Your task to perform on an android device: check the backup settings in the google photos Image 0: 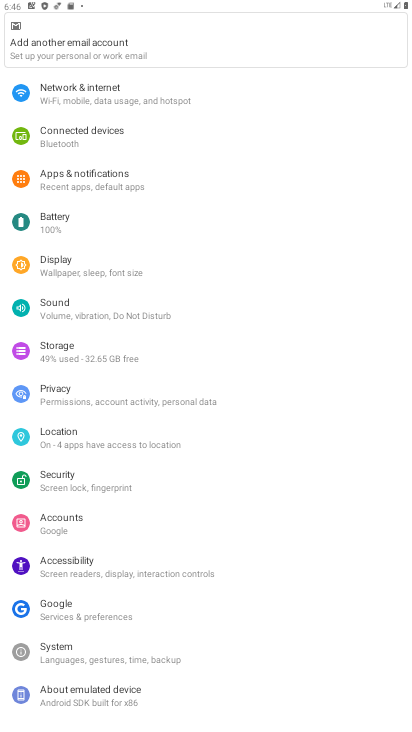
Step 0: press home button
Your task to perform on an android device: check the backup settings in the google photos Image 1: 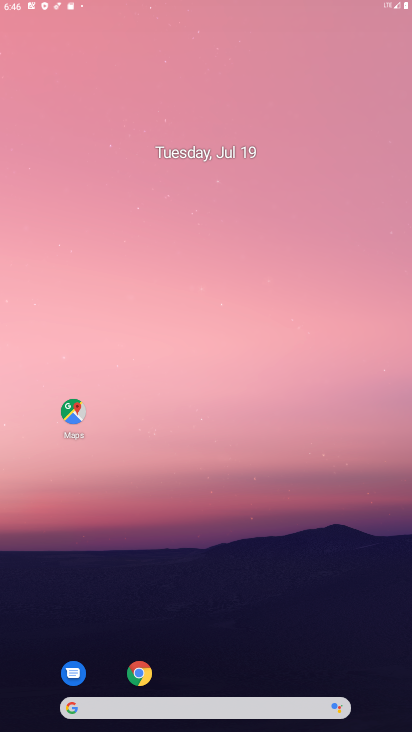
Step 1: drag from (387, 688) to (205, 21)
Your task to perform on an android device: check the backup settings in the google photos Image 2: 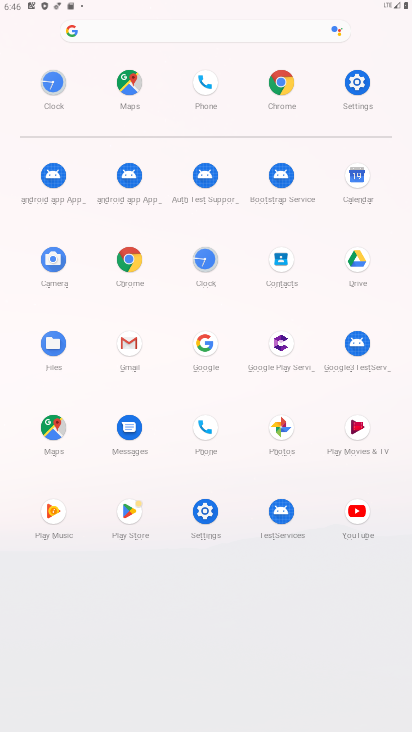
Step 2: click (276, 427)
Your task to perform on an android device: check the backup settings in the google photos Image 3: 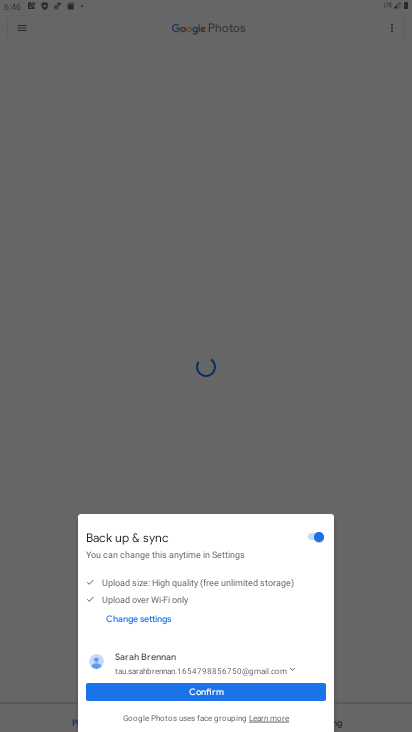
Step 3: click (166, 691)
Your task to perform on an android device: check the backup settings in the google photos Image 4: 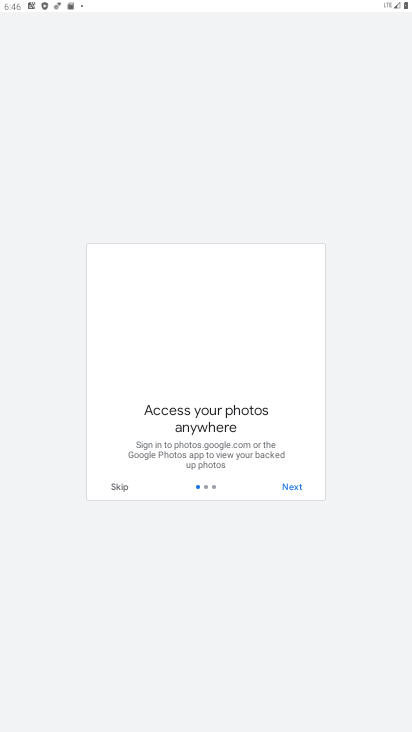
Step 4: click (295, 480)
Your task to perform on an android device: check the backup settings in the google photos Image 5: 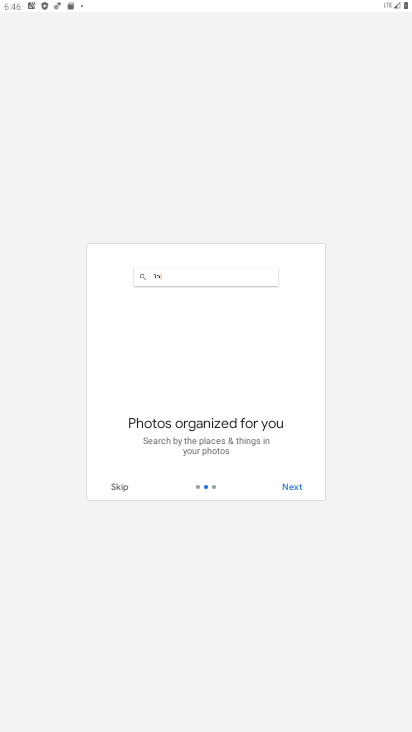
Step 5: click (293, 482)
Your task to perform on an android device: check the backup settings in the google photos Image 6: 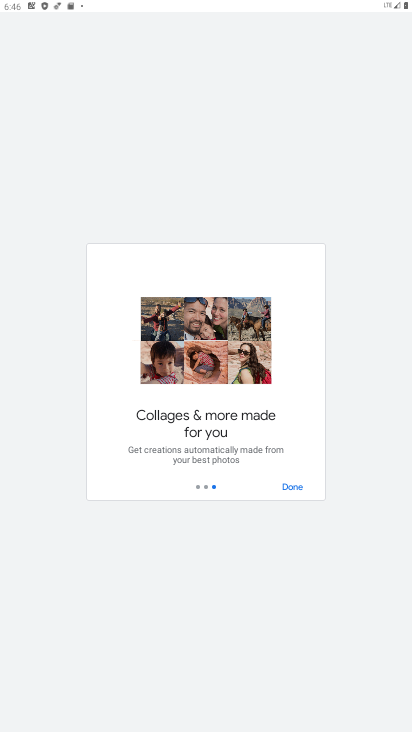
Step 6: click (293, 482)
Your task to perform on an android device: check the backup settings in the google photos Image 7: 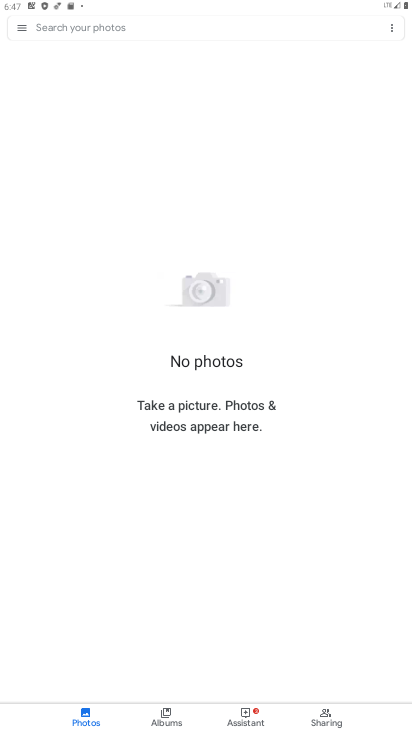
Step 7: click (389, 30)
Your task to perform on an android device: check the backup settings in the google photos Image 8: 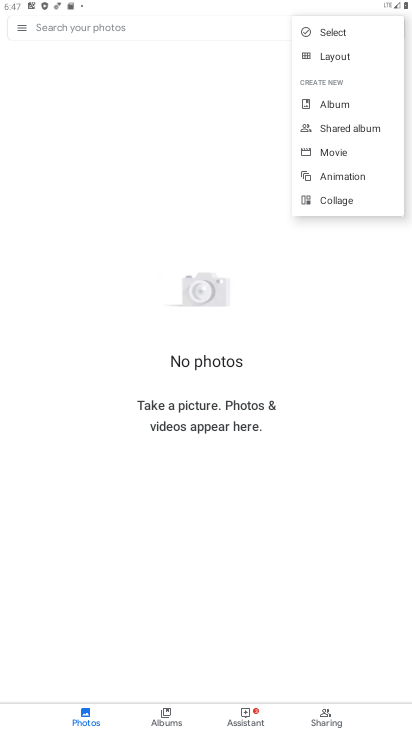
Step 8: click (15, 29)
Your task to perform on an android device: check the backup settings in the google photos Image 9: 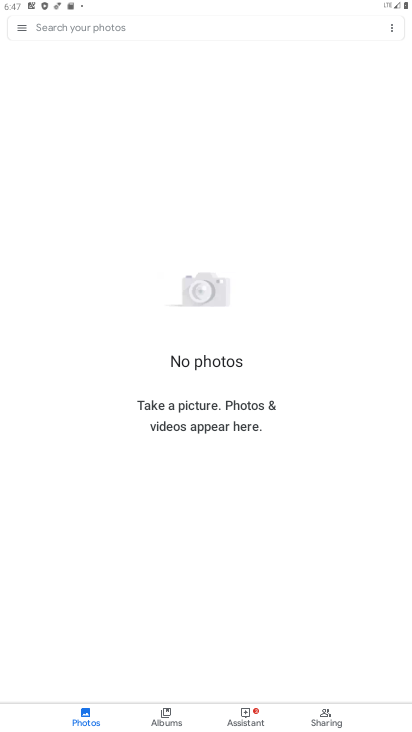
Step 9: click (17, 29)
Your task to perform on an android device: check the backup settings in the google photos Image 10: 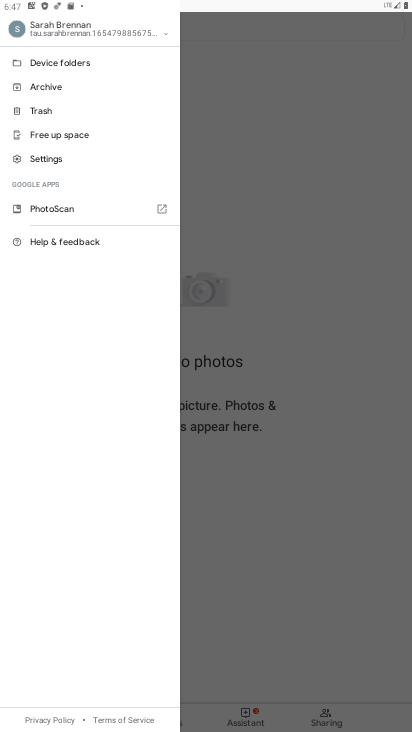
Step 10: click (55, 159)
Your task to perform on an android device: check the backup settings in the google photos Image 11: 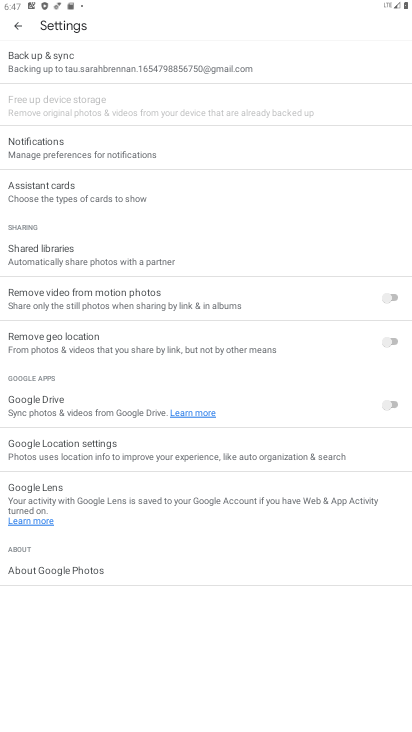
Step 11: click (125, 67)
Your task to perform on an android device: check the backup settings in the google photos Image 12: 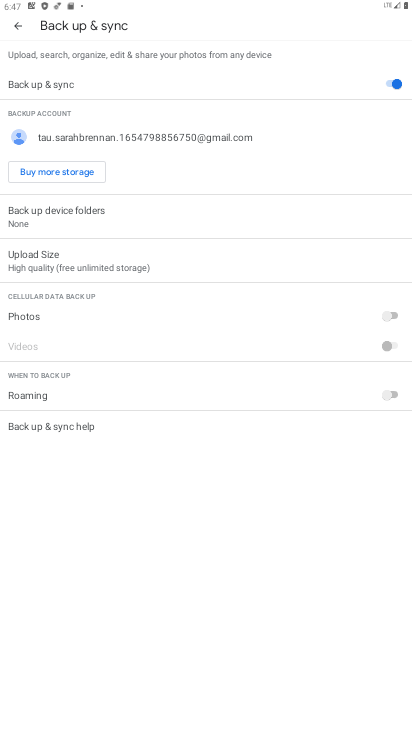
Step 12: task complete